Your task to perform on an android device: delete browsing data in the chrome app Image 0: 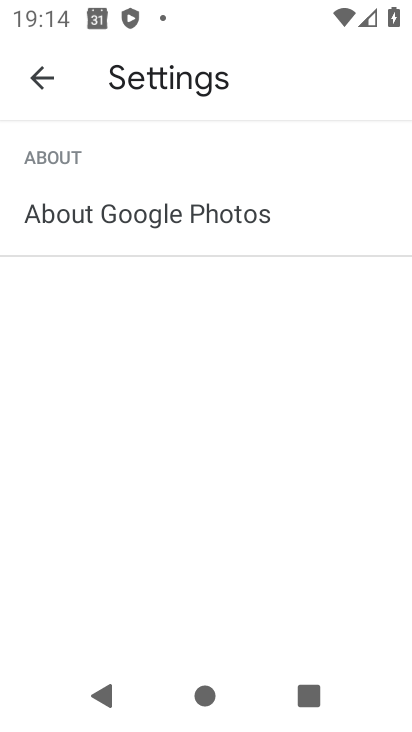
Step 0: press home button
Your task to perform on an android device: delete browsing data in the chrome app Image 1: 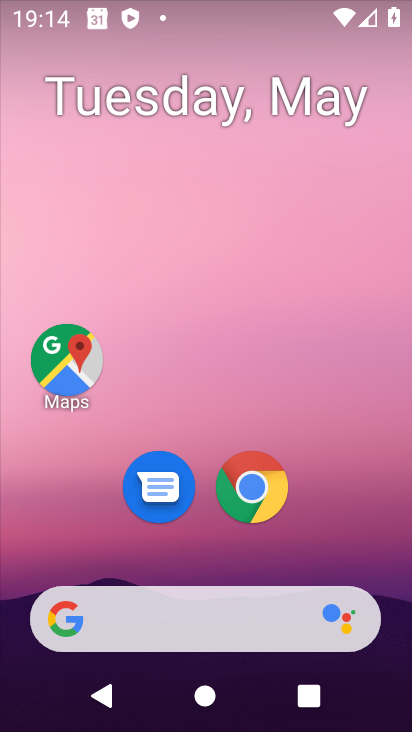
Step 1: click (247, 492)
Your task to perform on an android device: delete browsing data in the chrome app Image 2: 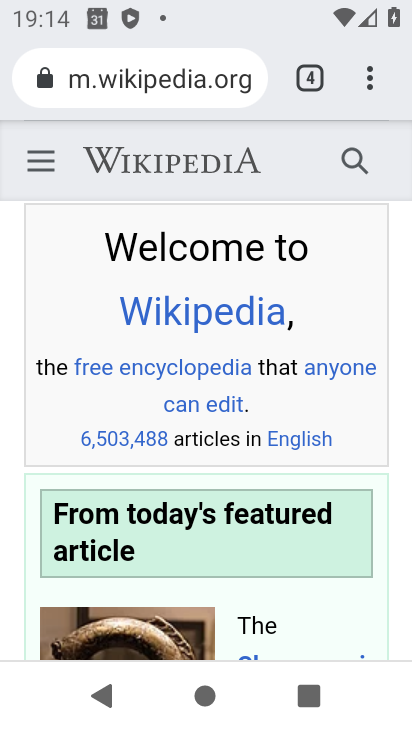
Step 2: click (365, 79)
Your task to perform on an android device: delete browsing data in the chrome app Image 3: 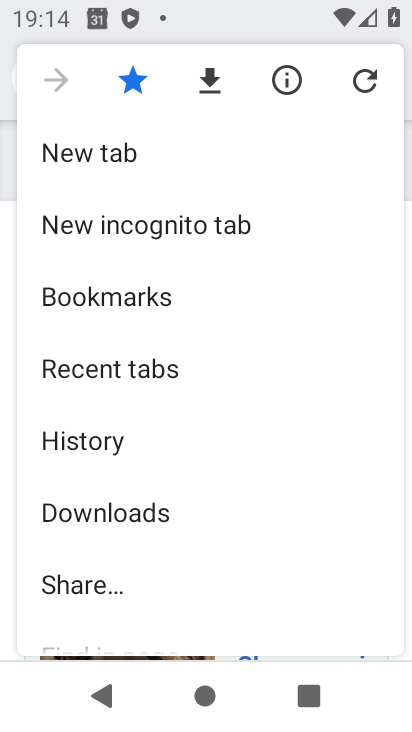
Step 3: click (83, 440)
Your task to perform on an android device: delete browsing data in the chrome app Image 4: 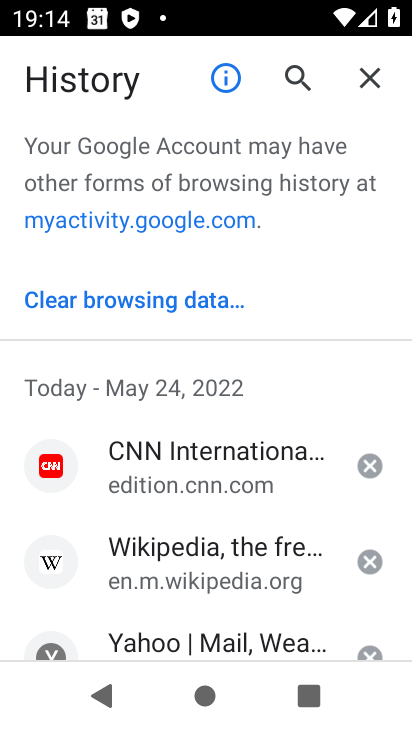
Step 4: click (178, 297)
Your task to perform on an android device: delete browsing data in the chrome app Image 5: 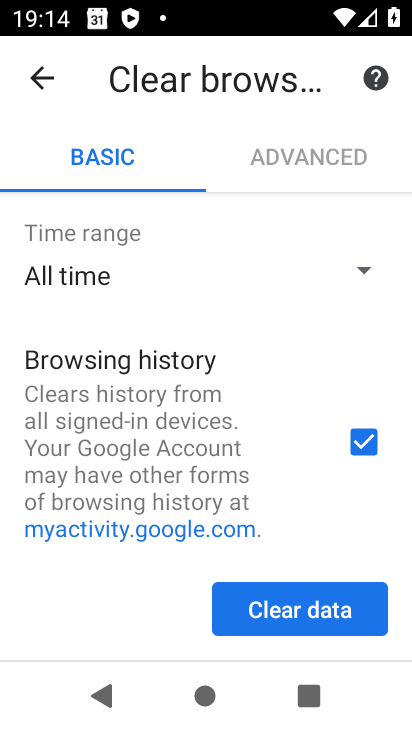
Step 5: click (305, 607)
Your task to perform on an android device: delete browsing data in the chrome app Image 6: 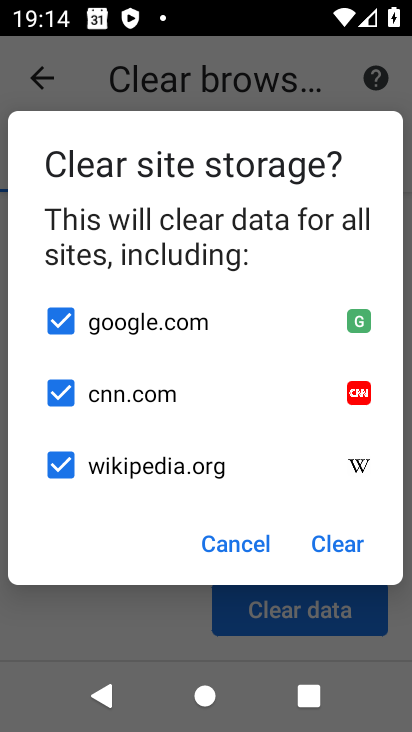
Step 6: click (327, 536)
Your task to perform on an android device: delete browsing data in the chrome app Image 7: 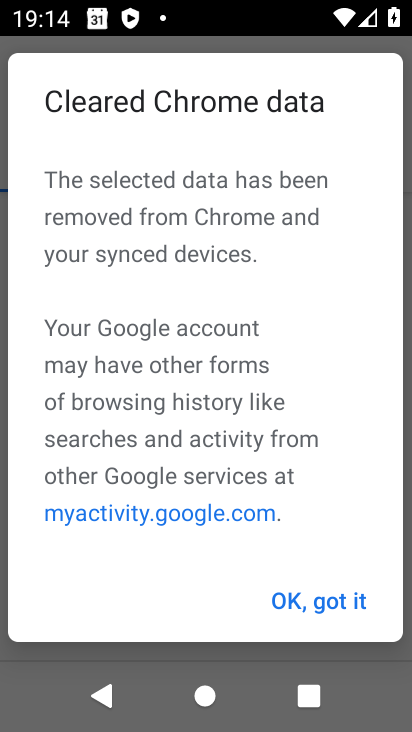
Step 7: click (314, 591)
Your task to perform on an android device: delete browsing data in the chrome app Image 8: 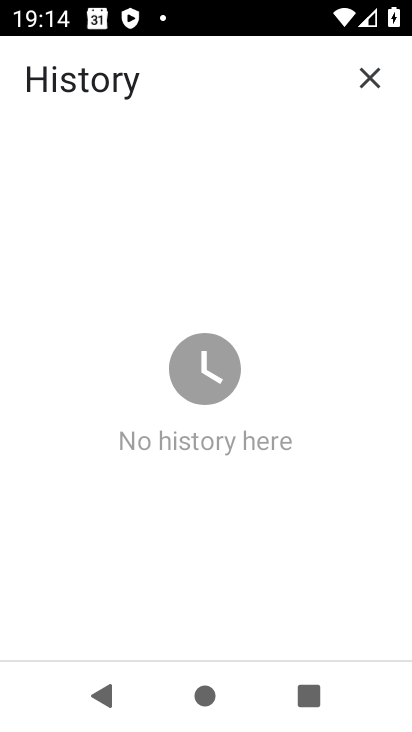
Step 8: task complete